Your task to perform on an android device: Is it going to rain this weekend? Image 0: 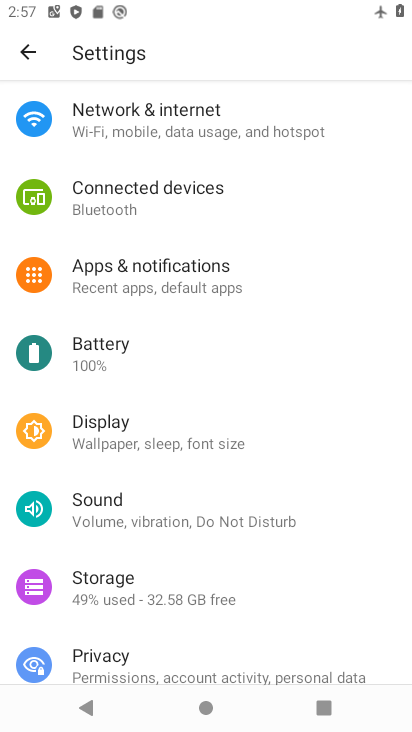
Step 0: press home button
Your task to perform on an android device: Is it going to rain this weekend? Image 1: 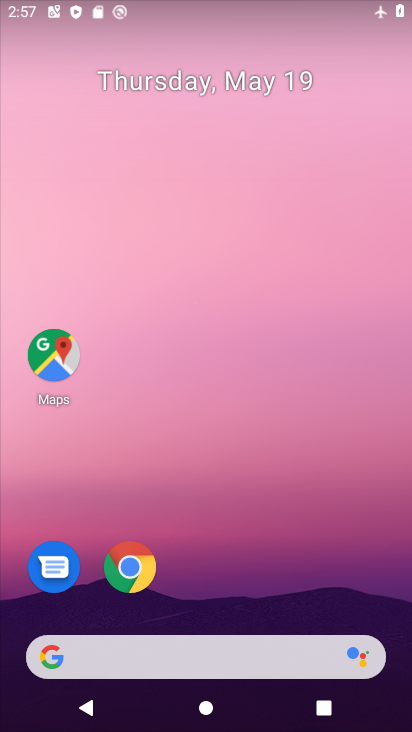
Step 1: drag from (190, 706) to (182, 181)
Your task to perform on an android device: Is it going to rain this weekend? Image 2: 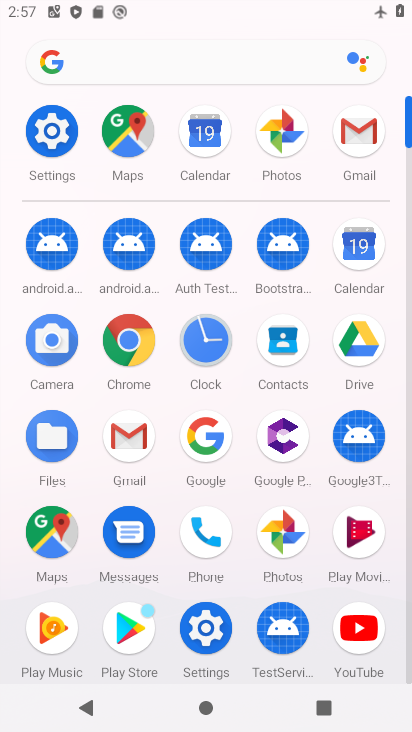
Step 2: click (206, 439)
Your task to perform on an android device: Is it going to rain this weekend? Image 3: 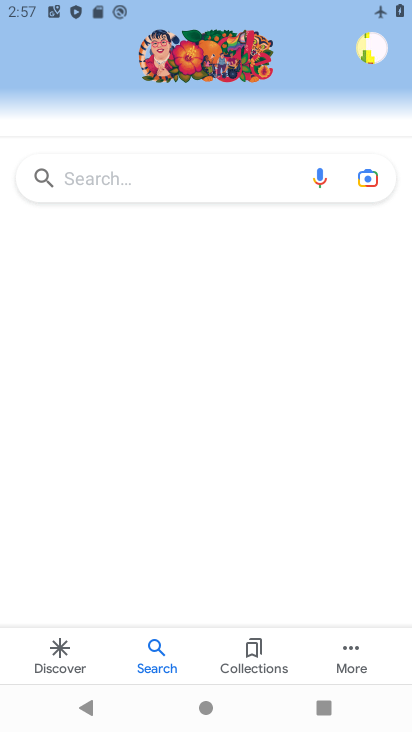
Step 3: click (163, 178)
Your task to perform on an android device: Is it going to rain this weekend? Image 4: 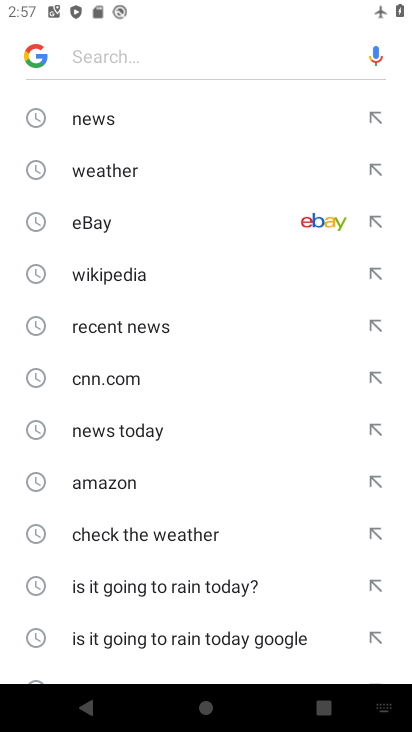
Step 4: click (122, 170)
Your task to perform on an android device: Is it going to rain this weekend? Image 5: 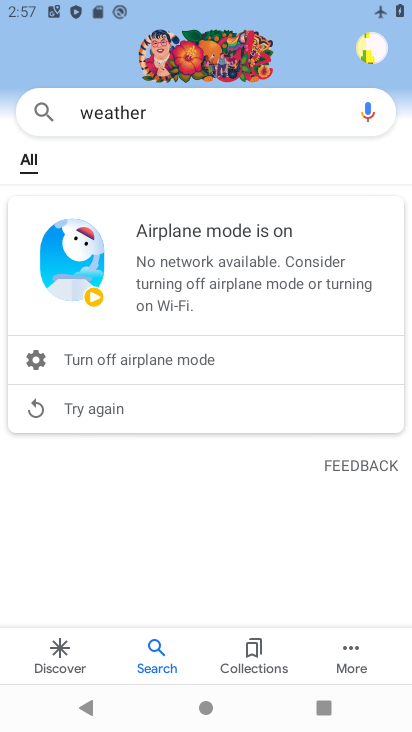
Step 5: task complete